Your task to perform on an android device: turn off improve location accuracy Image 0: 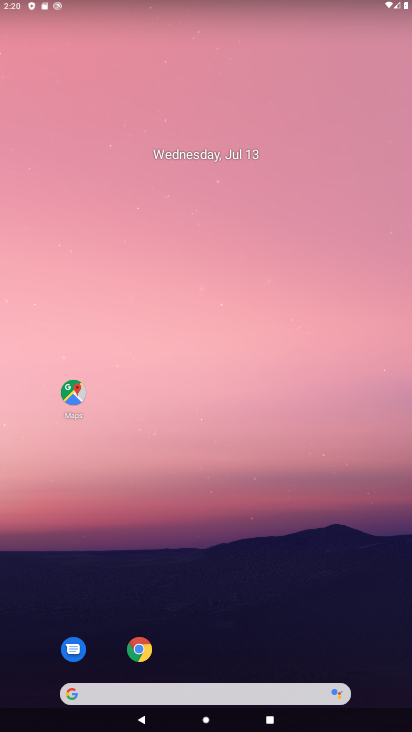
Step 0: drag from (215, 546) to (193, 62)
Your task to perform on an android device: turn off improve location accuracy Image 1: 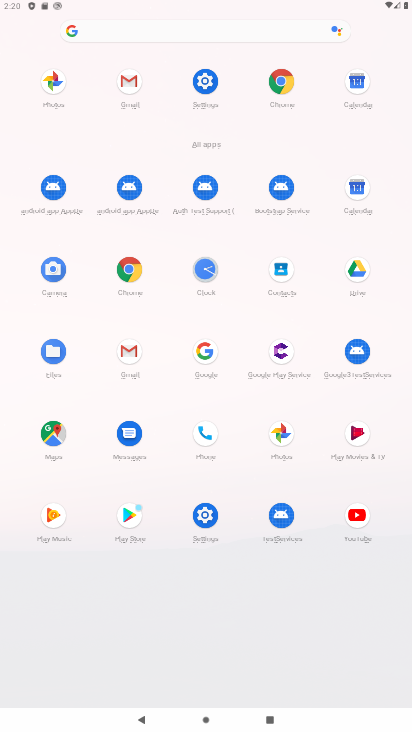
Step 1: click (201, 524)
Your task to perform on an android device: turn off improve location accuracy Image 2: 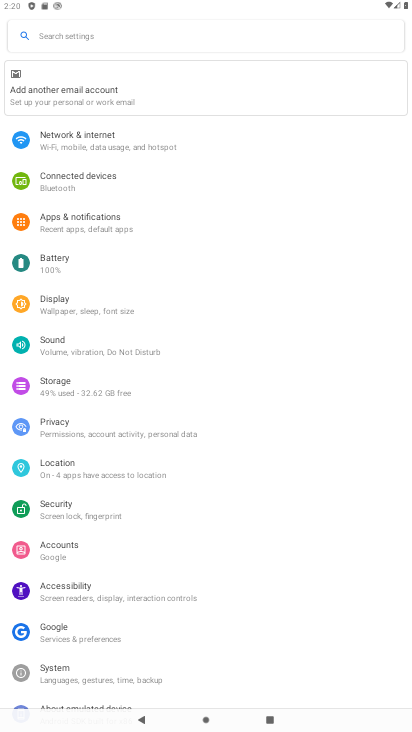
Step 2: click (72, 463)
Your task to perform on an android device: turn off improve location accuracy Image 3: 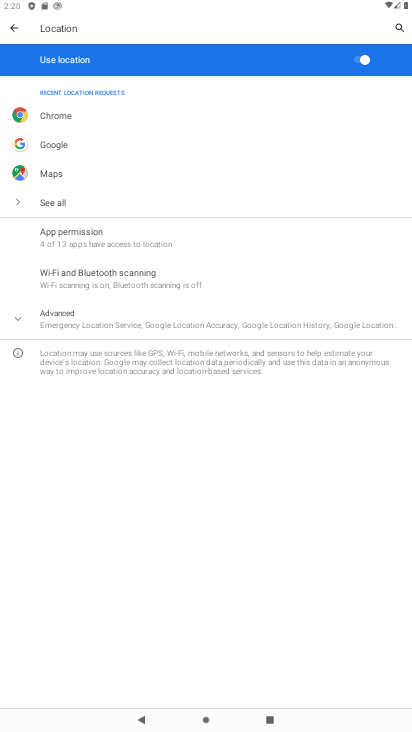
Step 3: click (17, 317)
Your task to perform on an android device: turn off improve location accuracy Image 4: 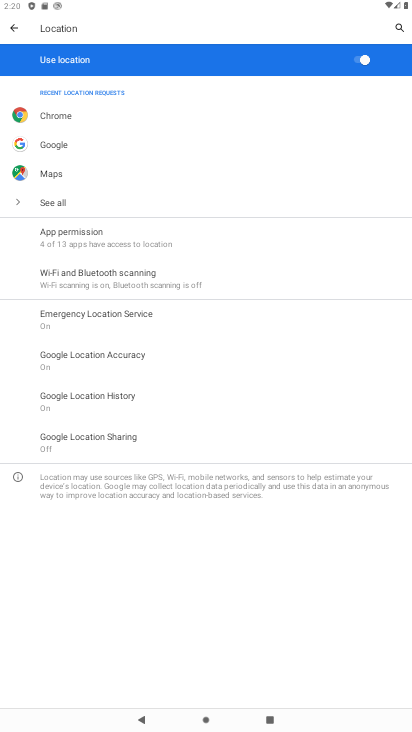
Step 4: click (74, 354)
Your task to perform on an android device: turn off improve location accuracy Image 5: 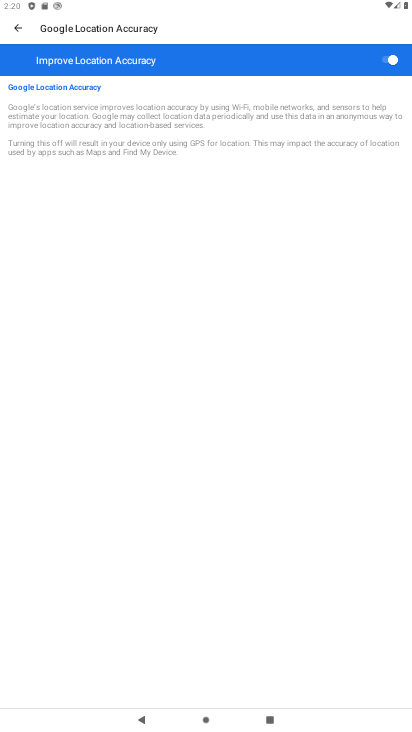
Step 5: click (388, 58)
Your task to perform on an android device: turn off improve location accuracy Image 6: 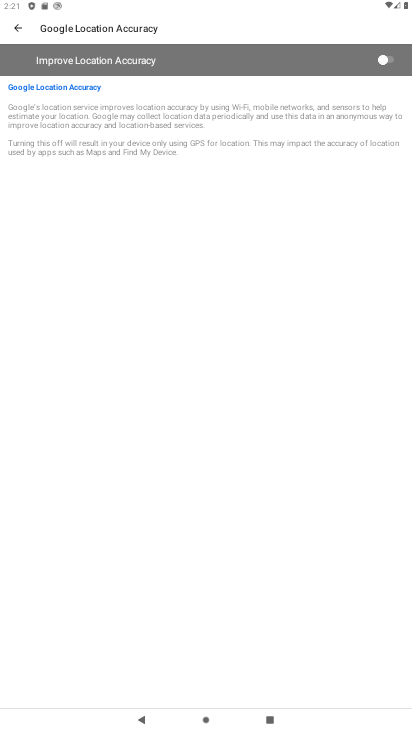
Step 6: task complete